Your task to perform on an android device: Open Yahoo.com Image 0: 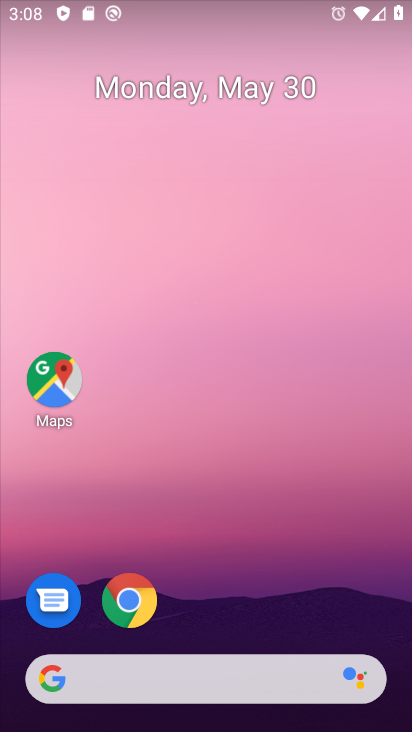
Step 0: click (125, 601)
Your task to perform on an android device: Open Yahoo.com Image 1: 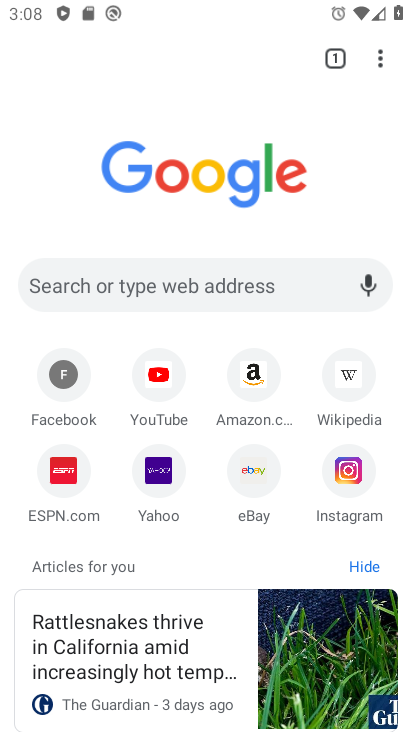
Step 1: click (161, 464)
Your task to perform on an android device: Open Yahoo.com Image 2: 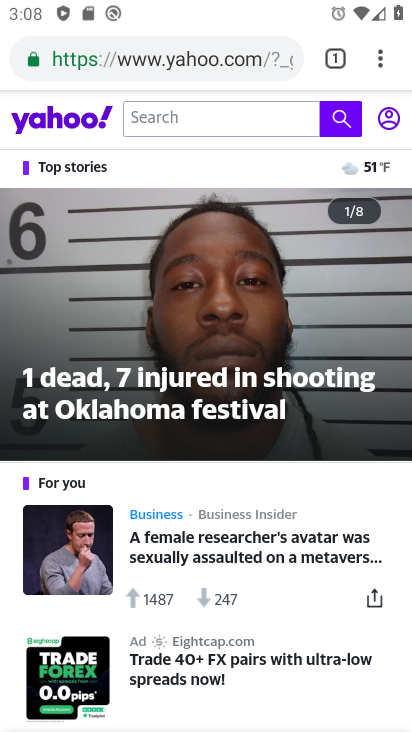
Step 2: task complete